Your task to perform on an android device: toggle notification dots Image 0: 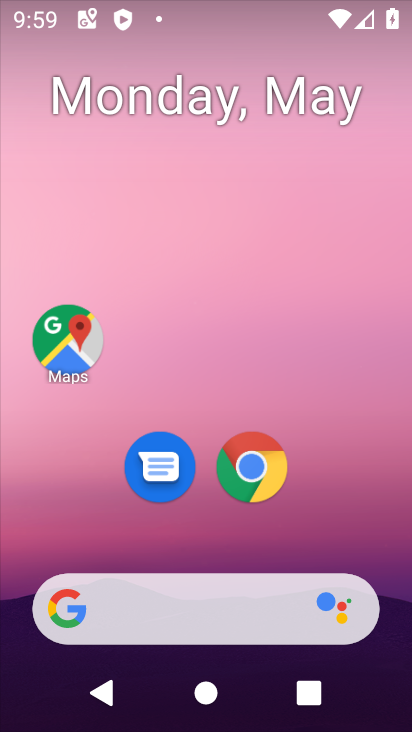
Step 0: drag from (405, 614) to (336, 176)
Your task to perform on an android device: toggle notification dots Image 1: 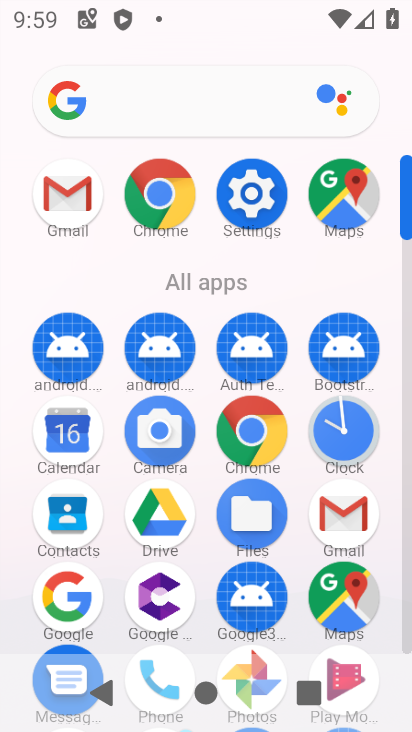
Step 1: click (408, 637)
Your task to perform on an android device: toggle notification dots Image 2: 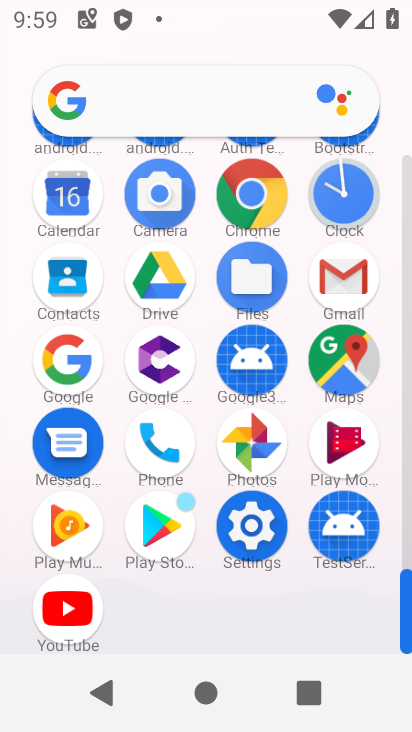
Step 2: click (252, 524)
Your task to perform on an android device: toggle notification dots Image 3: 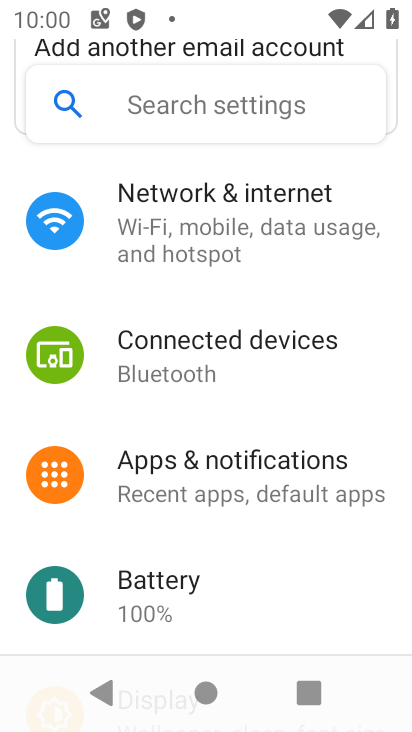
Step 3: click (210, 474)
Your task to perform on an android device: toggle notification dots Image 4: 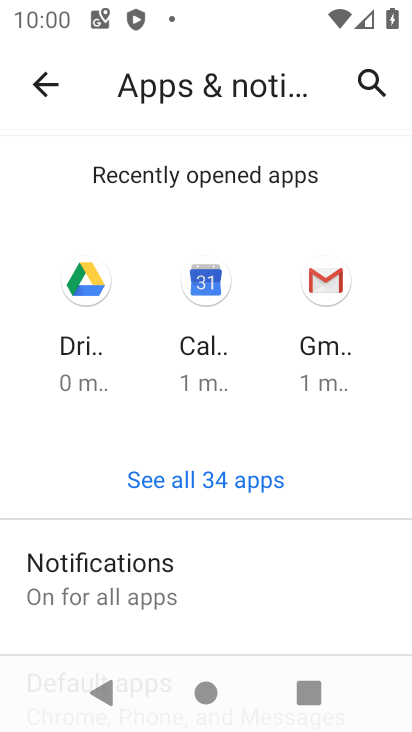
Step 4: click (136, 573)
Your task to perform on an android device: toggle notification dots Image 5: 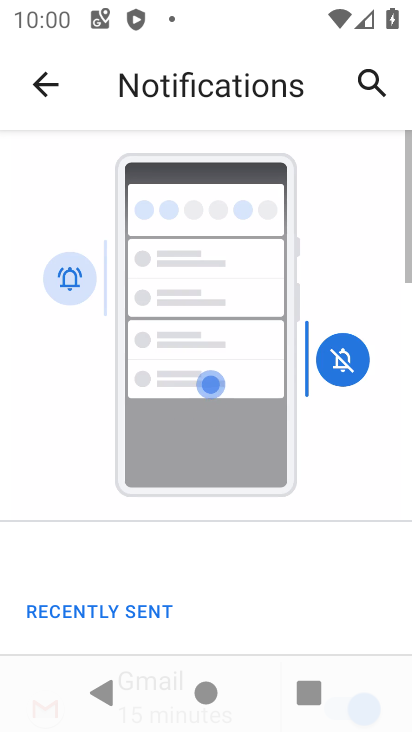
Step 5: drag from (244, 594) to (218, 111)
Your task to perform on an android device: toggle notification dots Image 6: 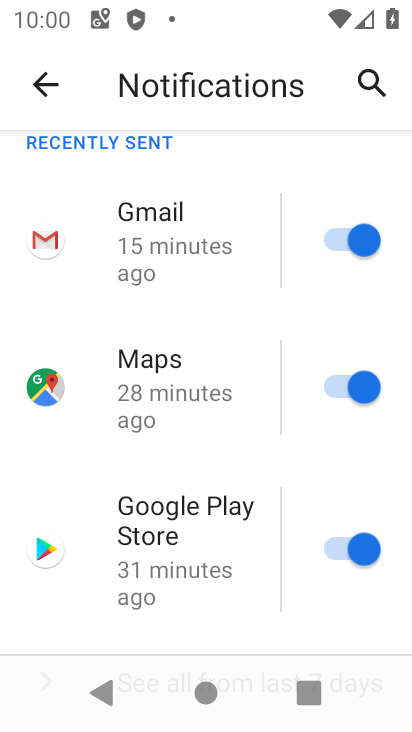
Step 6: drag from (284, 632) to (227, 175)
Your task to perform on an android device: toggle notification dots Image 7: 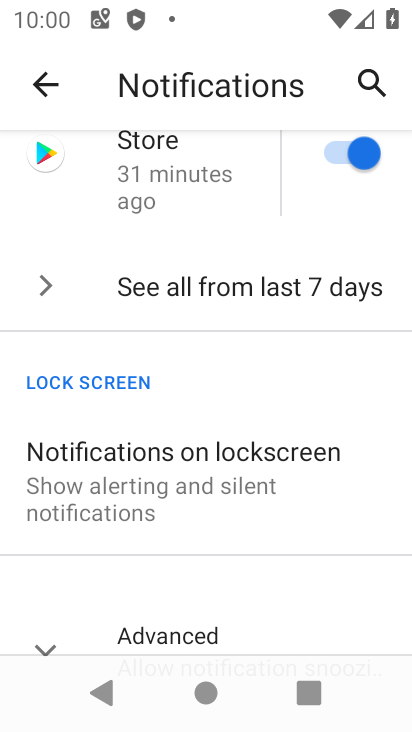
Step 7: click (41, 643)
Your task to perform on an android device: toggle notification dots Image 8: 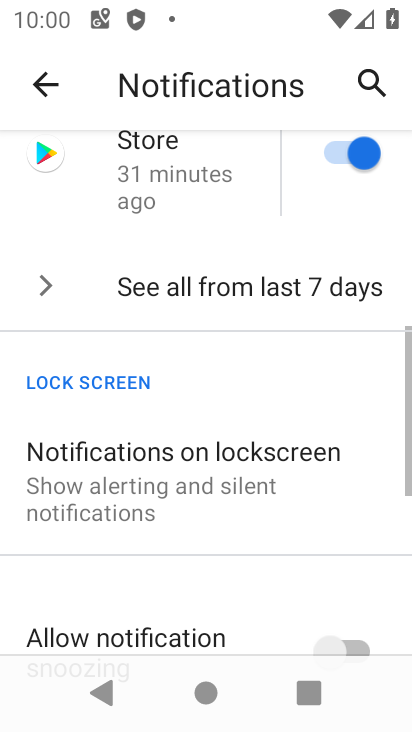
Step 8: drag from (154, 619) to (202, 264)
Your task to perform on an android device: toggle notification dots Image 9: 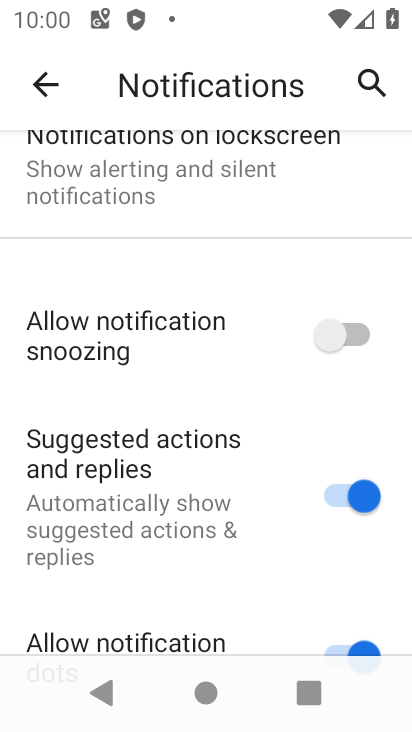
Step 9: drag from (254, 592) to (224, 197)
Your task to perform on an android device: toggle notification dots Image 10: 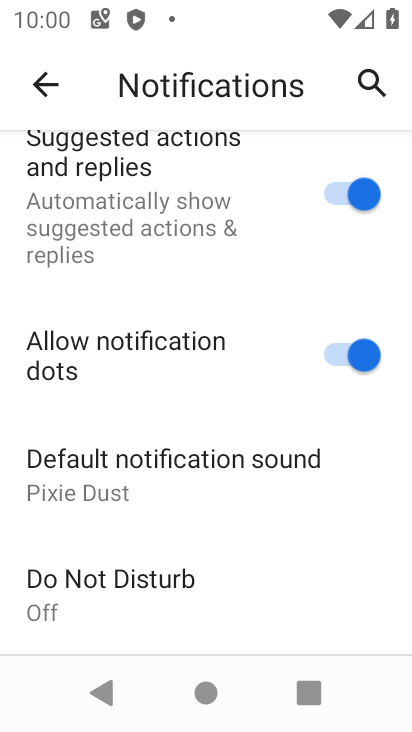
Step 10: click (341, 357)
Your task to perform on an android device: toggle notification dots Image 11: 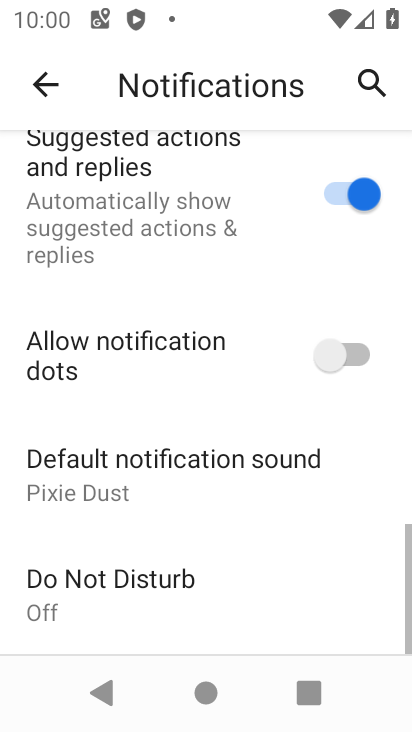
Step 11: task complete